Your task to perform on an android device: Search for Mexican restaurants on Maps Image 0: 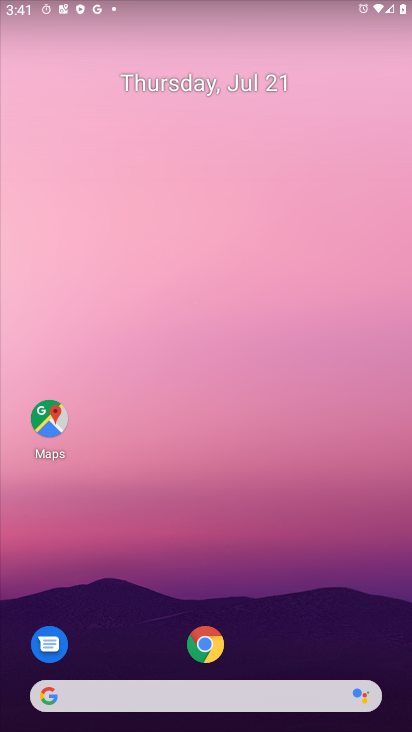
Step 0: press home button
Your task to perform on an android device: Search for Mexican restaurants on Maps Image 1: 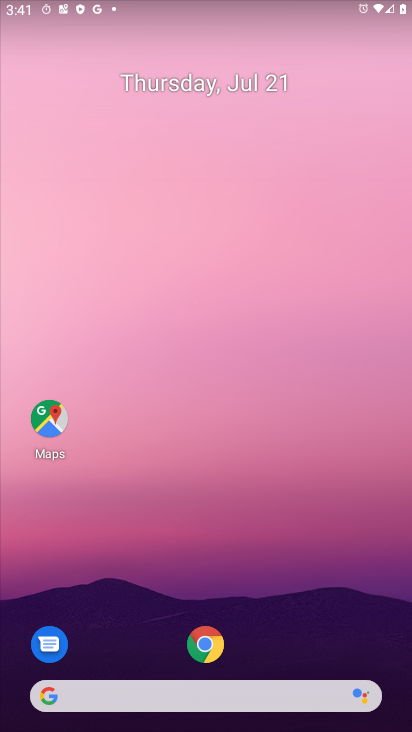
Step 1: click (58, 423)
Your task to perform on an android device: Search for Mexican restaurants on Maps Image 2: 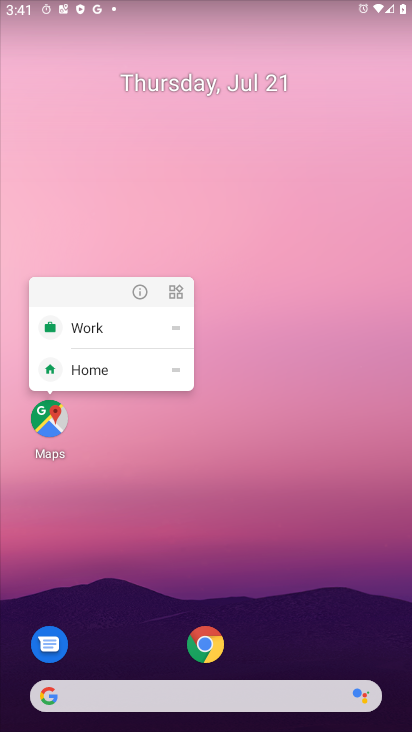
Step 2: click (39, 425)
Your task to perform on an android device: Search for Mexican restaurants on Maps Image 3: 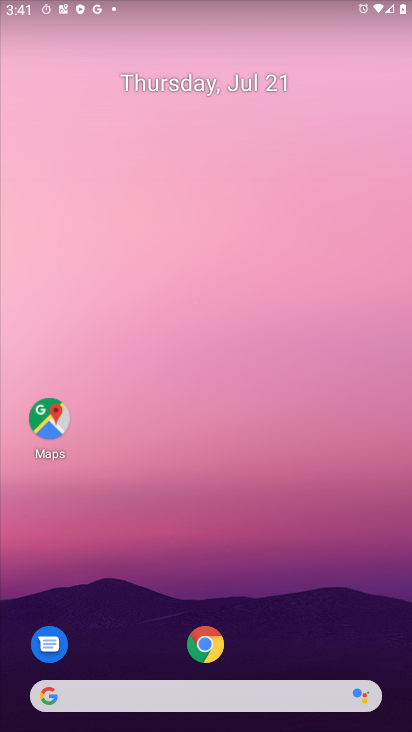
Step 3: click (53, 409)
Your task to perform on an android device: Search for Mexican restaurants on Maps Image 4: 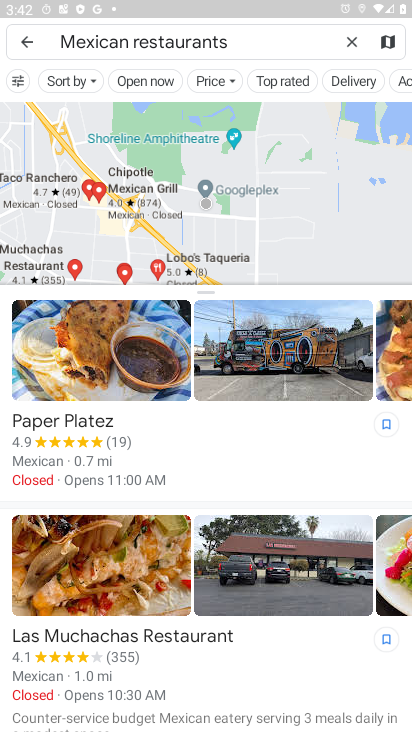
Step 4: task complete